Your task to perform on an android device: turn notification dots on Image 0: 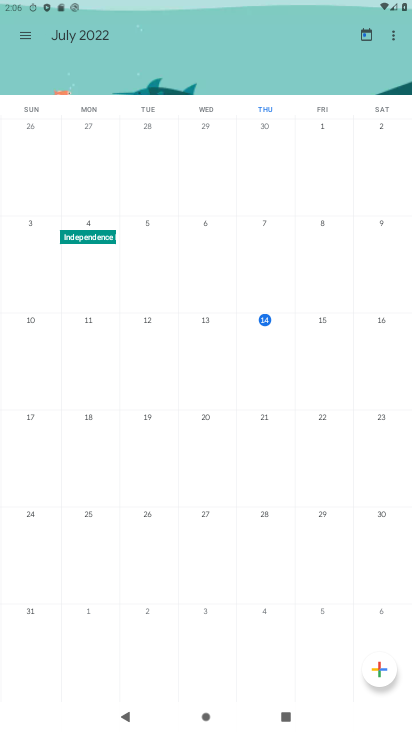
Step 0: press home button
Your task to perform on an android device: turn notification dots on Image 1: 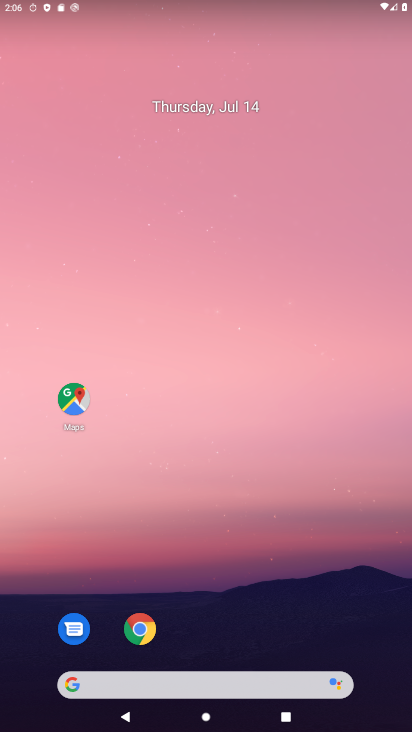
Step 1: drag from (213, 652) to (225, 13)
Your task to perform on an android device: turn notification dots on Image 2: 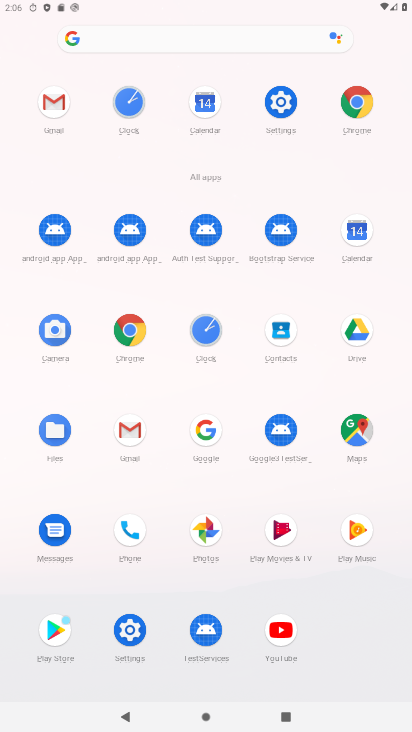
Step 2: click (133, 637)
Your task to perform on an android device: turn notification dots on Image 3: 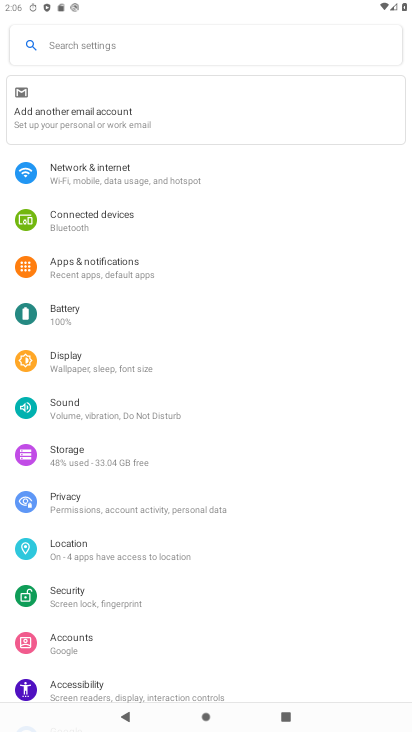
Step 3: click (132, 267)
Your task to perform on an android device: turn notification dots on Image 4: 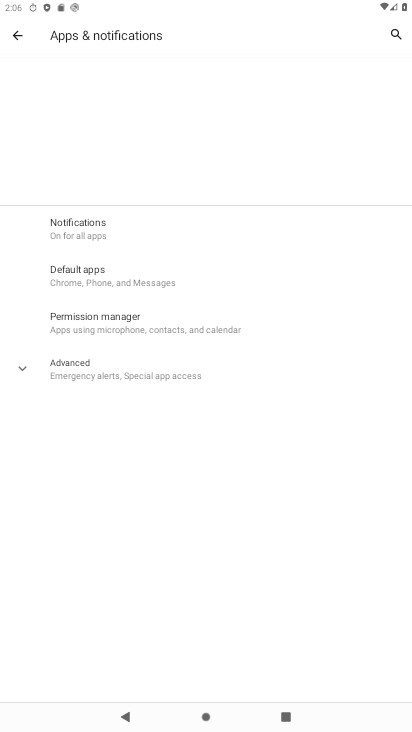
Step 4: click (96, 228)
Your task to perform on an android device: turn notification dots on Image 5: 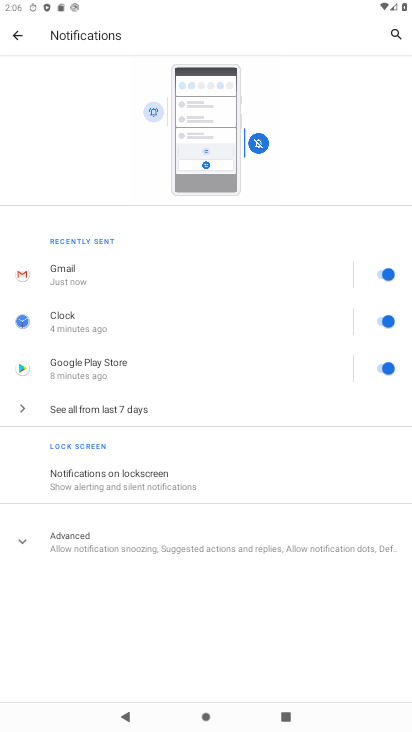
Step 5: click (166, 553)
Your task to perform on an android device: turn notification dots on Image 6: 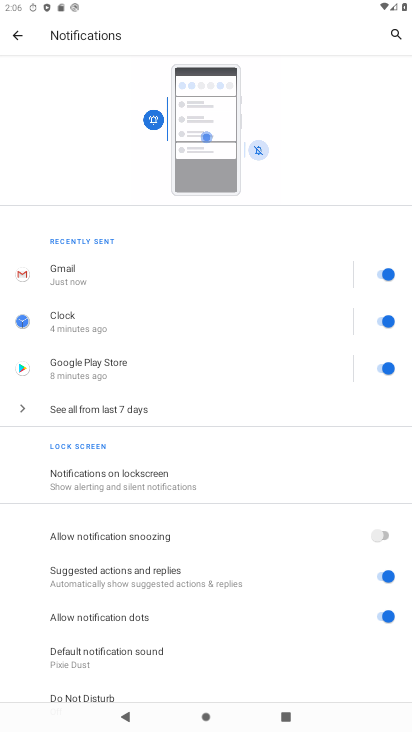
Step 6: task complete